Your task to perform on an android device: all mails in gmail Image 0: 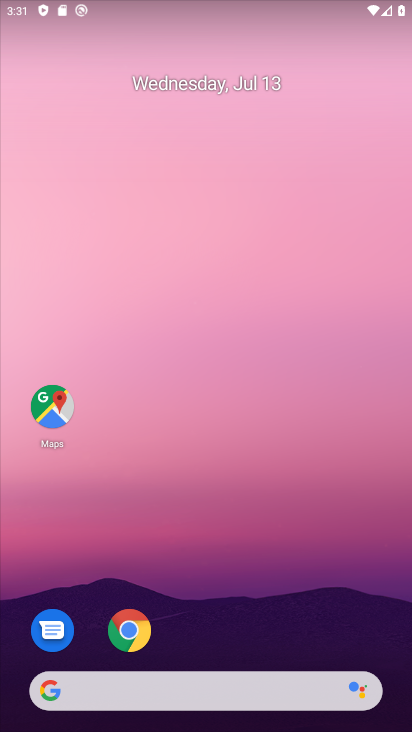
Step 0: drag from (252, 536) to (217, 11)
Your task to perform on an android device: all mails in gmail Image 1: 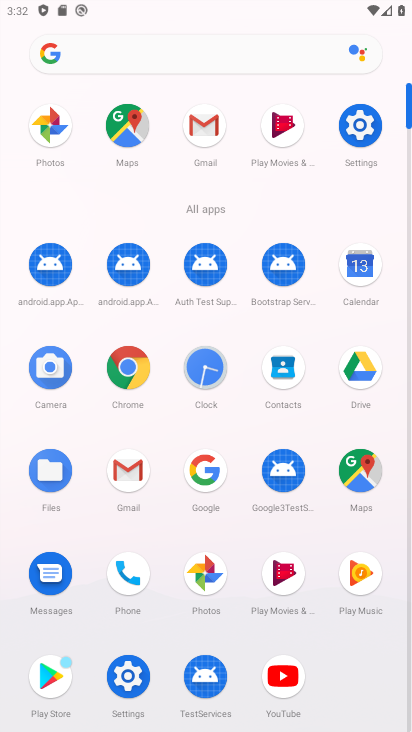
Step 1: click (203, 122)
Your task to perform on an android device: all mails in gmail Image 2: 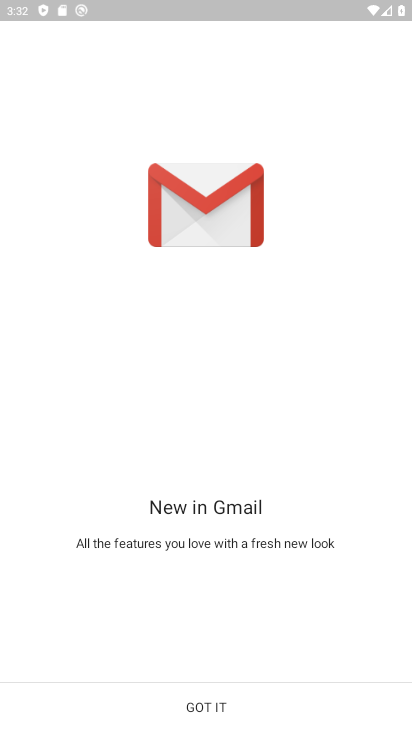
Step 2: click (222, 718)
Your task to perform on an android device: all mails in gmail Image 3: 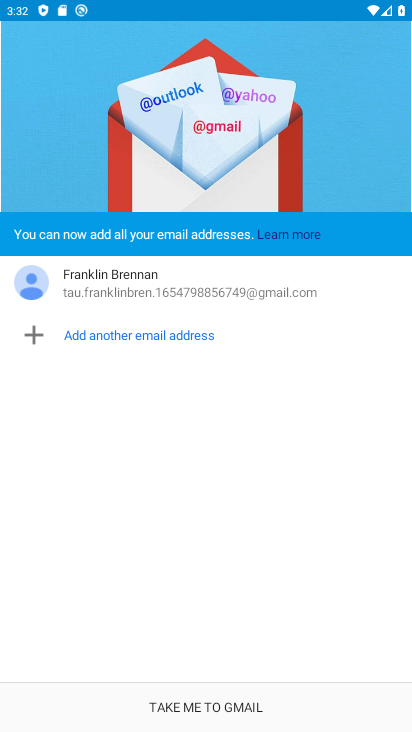
Step 3: click (222, 718)
Your task to perform on an android device: all mails in gmail Image 4: 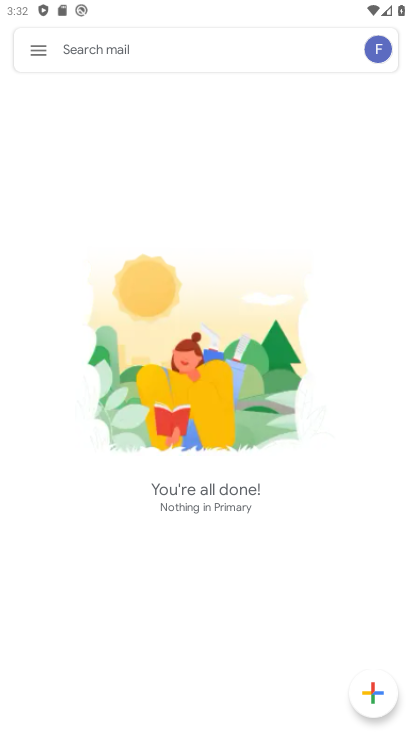
Step 4: click (34, 43)
Your task to perform on an android device: all mails in gmail Image 5: 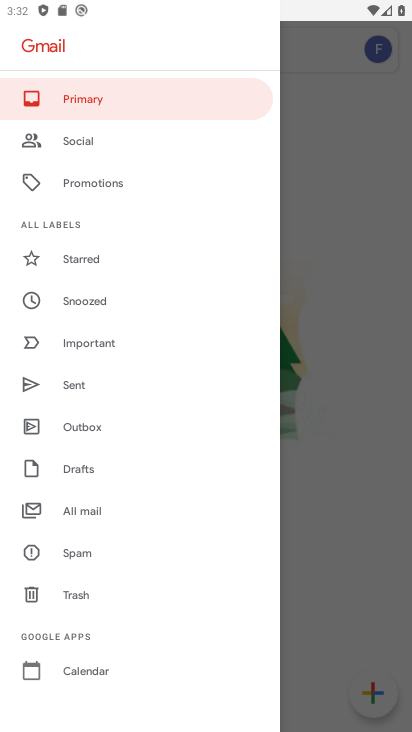
Step 5: click (84, 517)
Your task to perform on an android device: all mails in gmail Image 6: 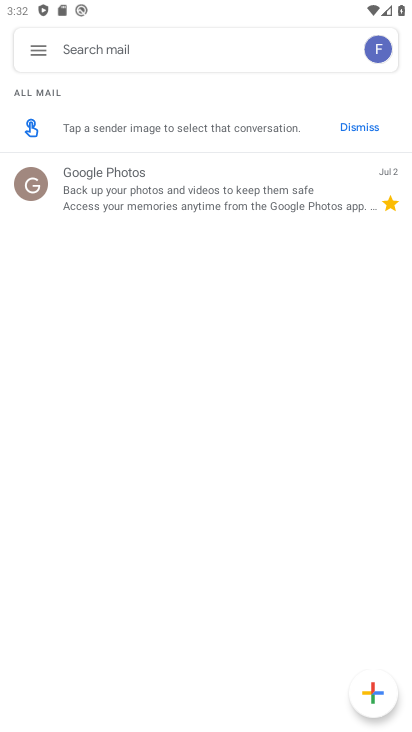
Step 6: task complete